Your task to perform on an android device: install app "Google Pay: Save, Pay, Manage" Image 0: 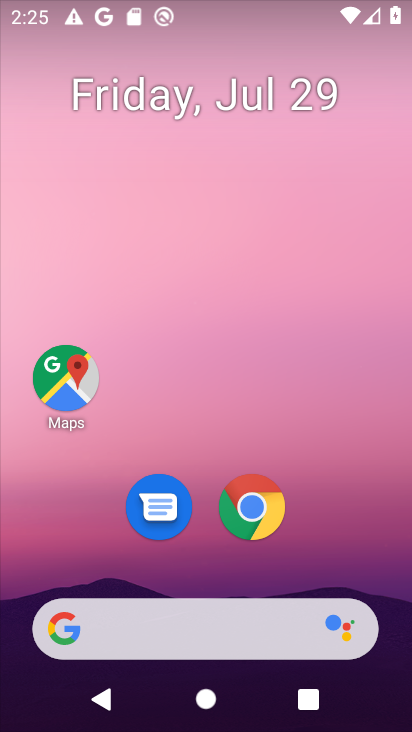
Step 0: click (252, 619)
Your task to perform on an android device: install app "Google Pay: Save, Pay, Manage" Image 1: 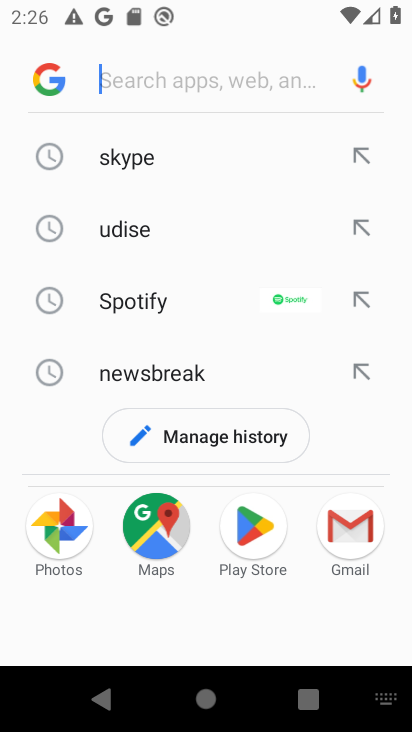
Step 1: type "google pay"
Your task to perform on an android device: install app "Google Pay: Save, Pay, Manage" Image 2: 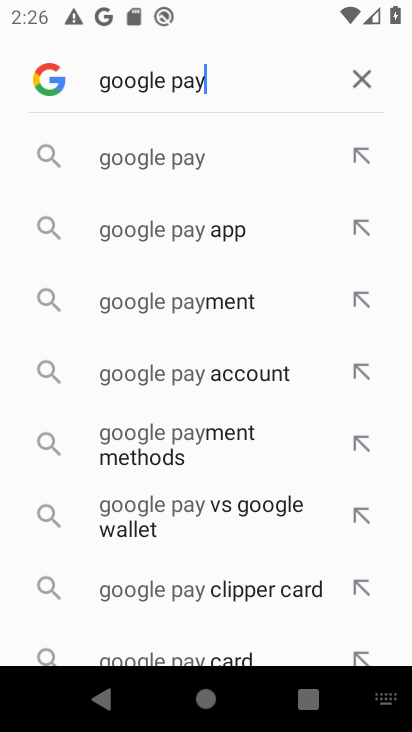
Step 2: click (277, 161)
Your task to perform on an android device: install app "Google Pay: Save, Pay, Manage" Image 3: 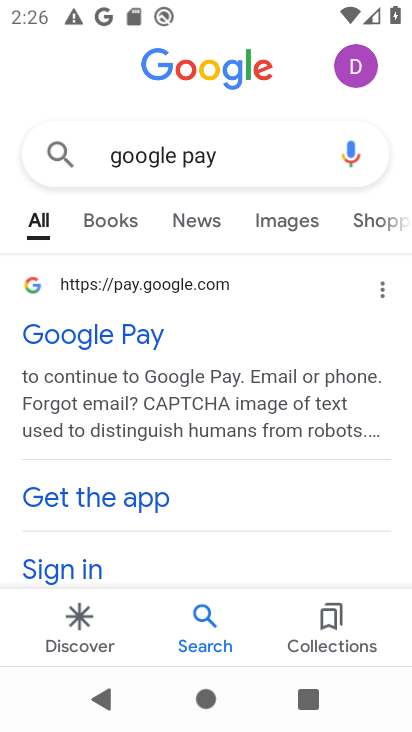
Step 3: drag from (290, 497) to (206, 175)
Your task to perform on an android device: install app "Google Pay: Save, Pay, Manage" Image 4: 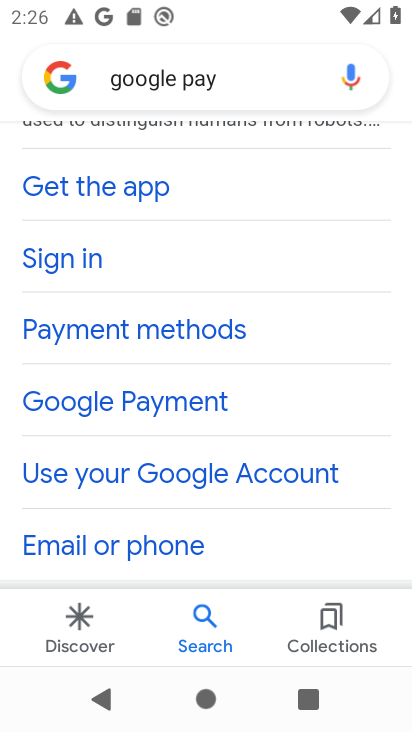
Step 4: drag from (242, 487) to (209, 315)
Your task to perform on an android device: install app "Google Pay: Save, Pay, Manage" Image 5: 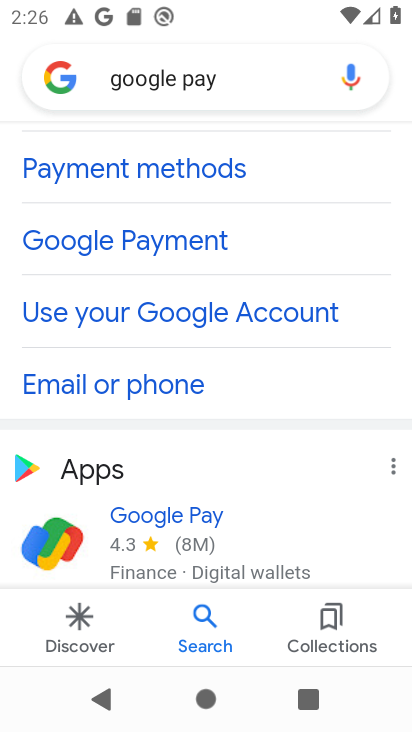
Step 5: drag from (317, 535) to (291, 347)
Your task to perform on an android device: install app "Google Pay: Save, Pay, Manage" Image 6: 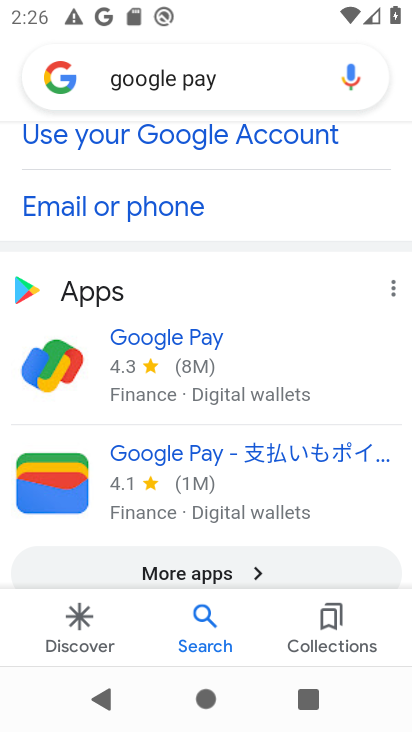
Step 6: click (257, 374)
Your task to perform on an android device: install app "Google Pay: Save, Pay, Manage" Image 7: 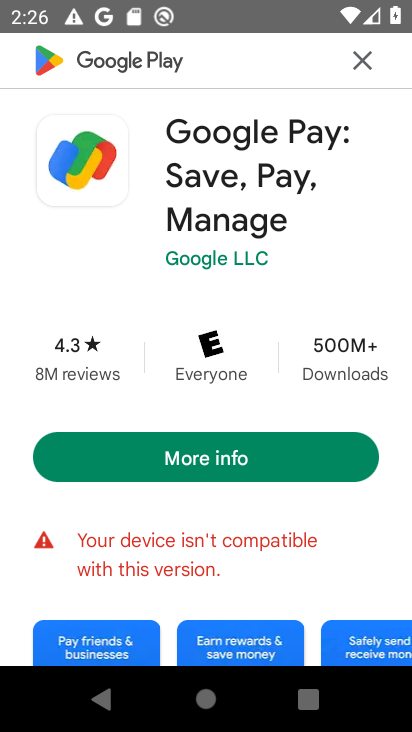
Step 7: task complete